Your task to perform on an android device: delete a single message in the gmail app Image 0: 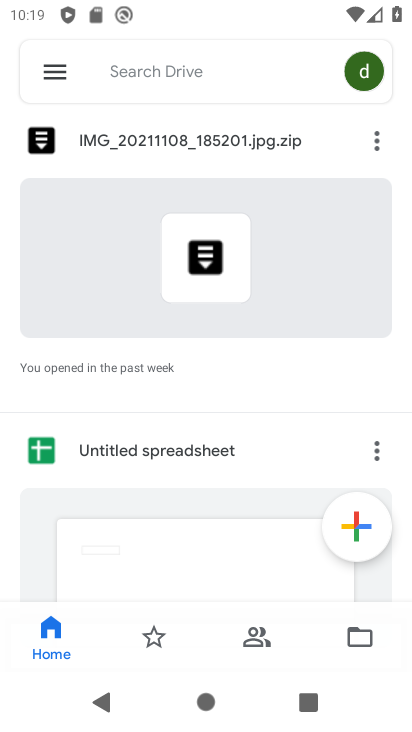
Step 0: press home button
Your task to perform on an android device: delete a single message in the gmail app Image 1: 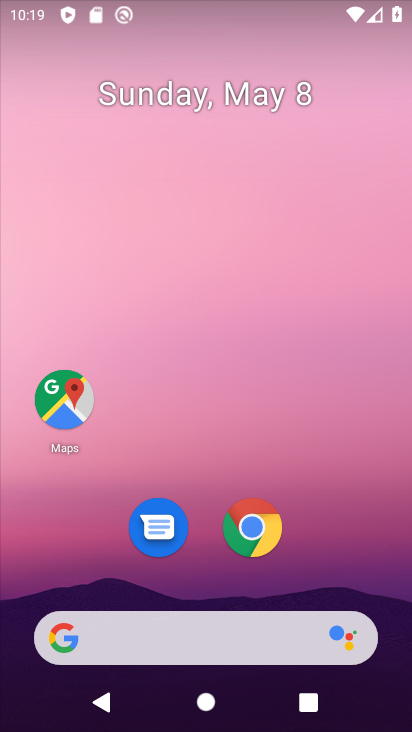
Step 1: drag from (334, 528) to (332, 147)
Your task to perform on an android device: delete a single message in the gmail app Image 2: 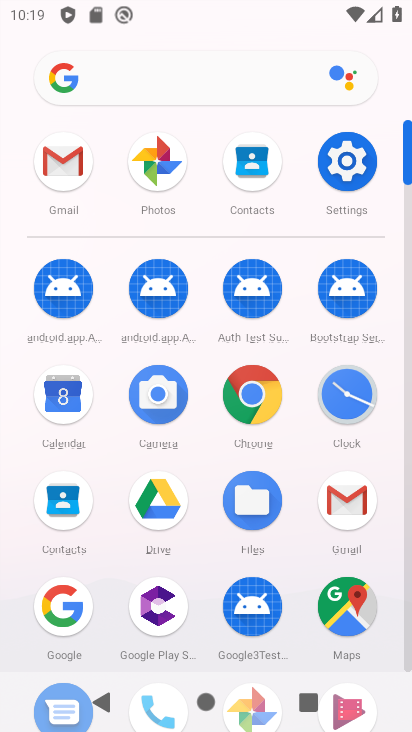
Step 2: click (360, 507)
Your task to perform on an android device: delete a single message in the gmail app Image 3: 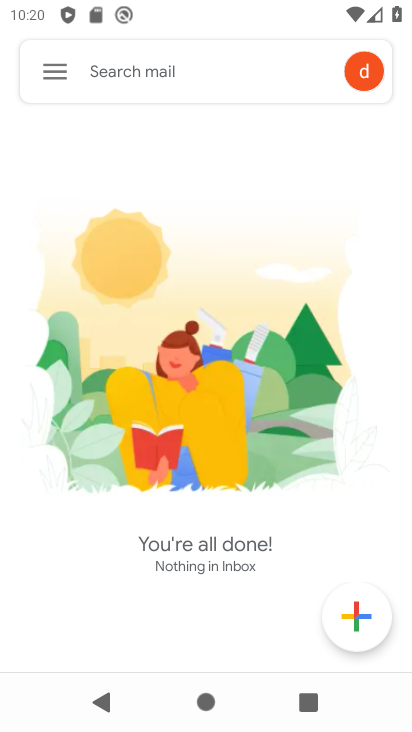
Step 3: task complete